Your task to perform on an android device: Go to Maps Image 0: 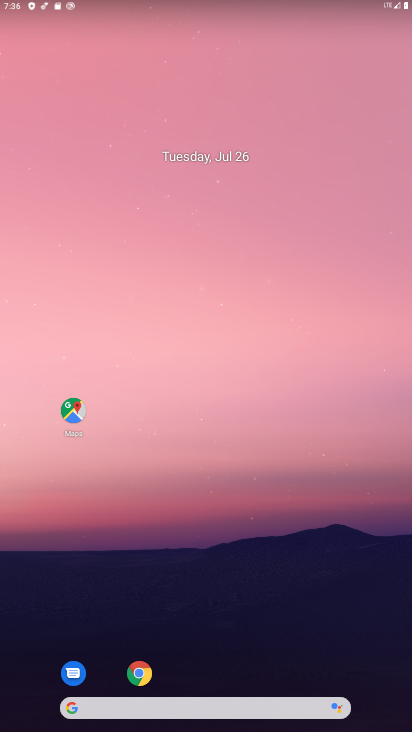
Step 0: drag from (297, 611) to (208, 95)
Your task to perform on an android device: Go to Maps Image 1: 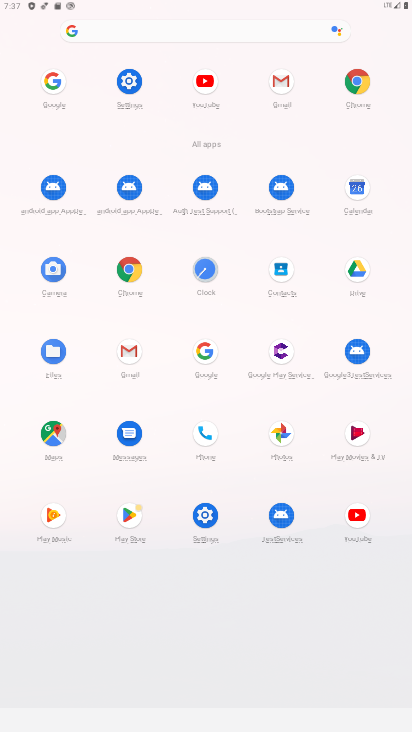
Step 1: click (47, 444)
Your task to perform on an android device: Go to Maps Image 2: 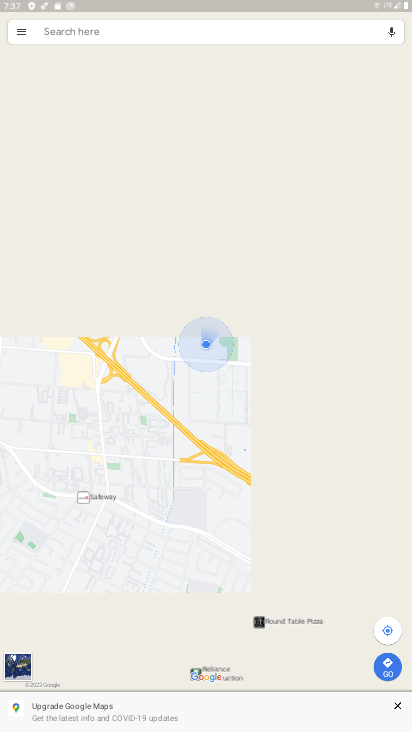
Step 2: task complete